Your task to perform on an android device: Show the shopping cart on ebay. Add "bose soundsport free" to the cart on ebay, then select checkout. Image 0: 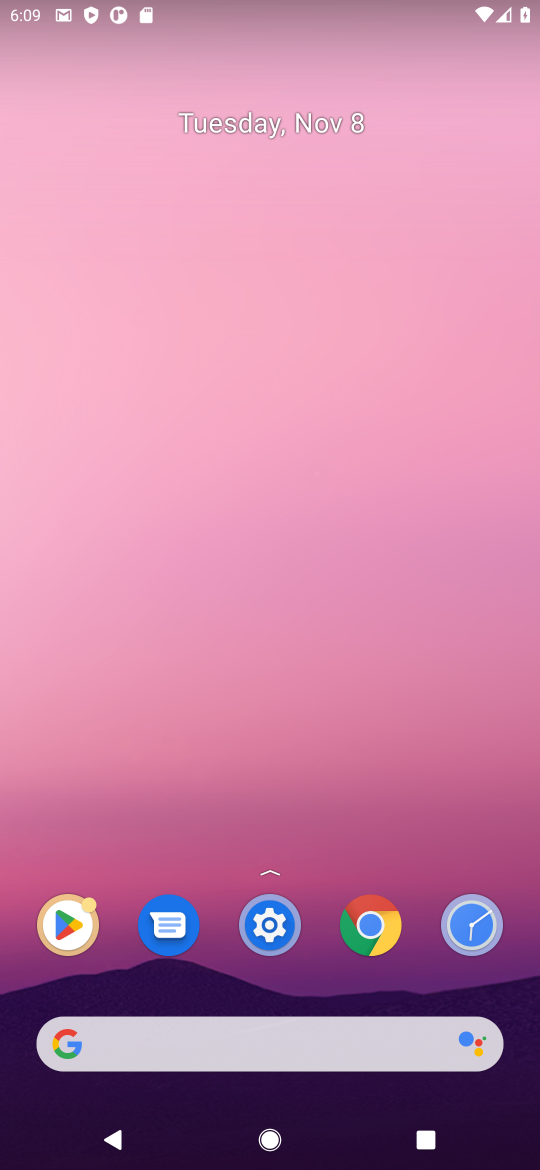
Step 0: click (369, 924)
Your task to perform on an android device: Show the shopping cart on ebay. Add "bose soundsport free" to the cart on ebay, then select checkout. Image 1: 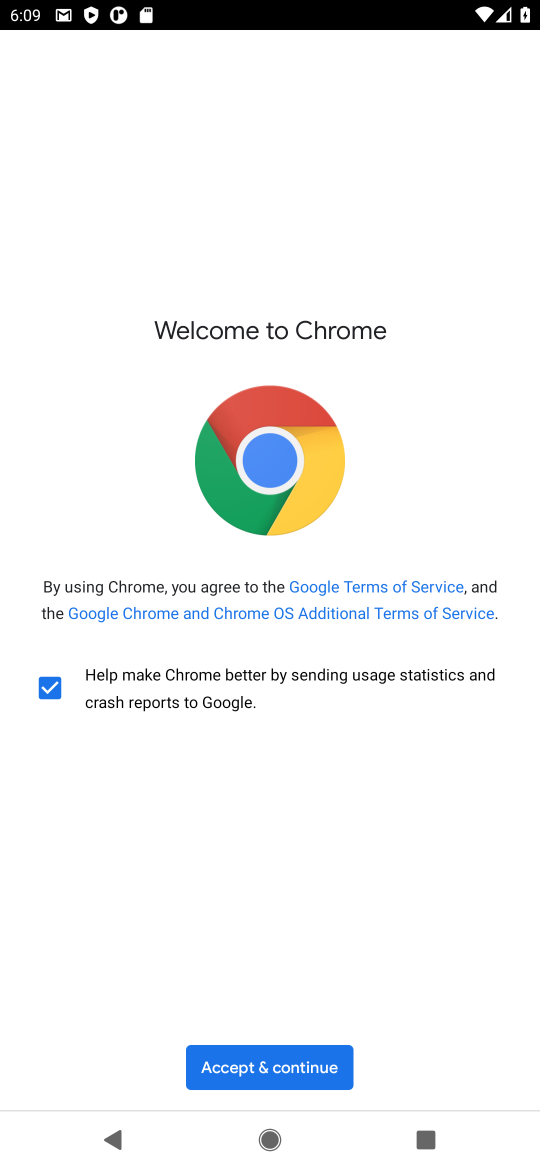
Step 1: click (282, 1067)
Your task to perform on an android device: Show the shopping cart on ebay. Add "bose soundsport free" to the cart on ebay, then select checkout. Image 2: 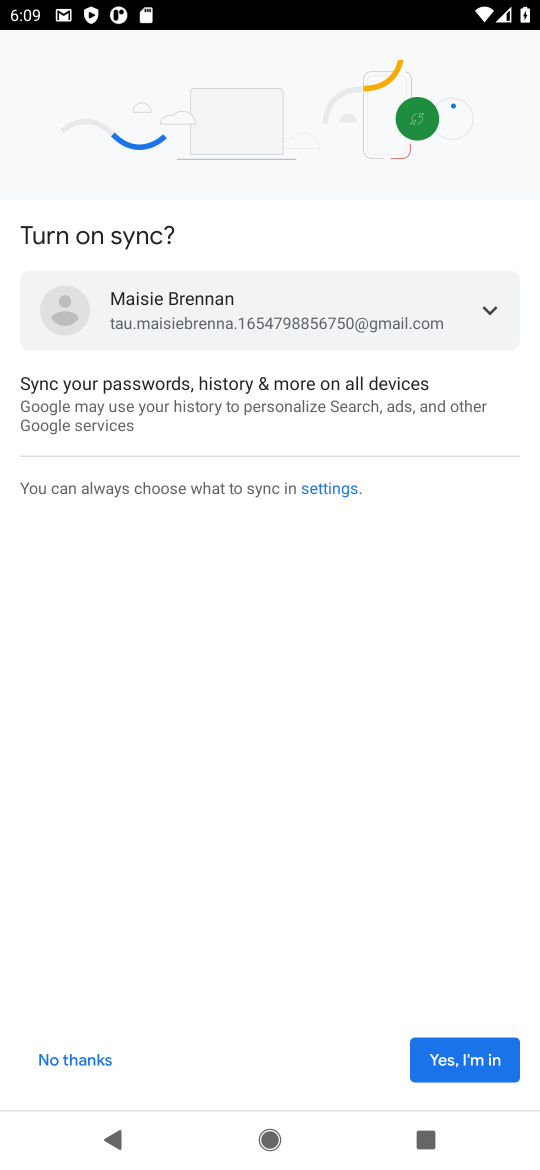
Step 2: click (82, 1058)
Your task to perform on an android device: Show the shopping cart on ebay. Add "bose soundsport free" to the cart on ebay, then select checkout. Image 3: 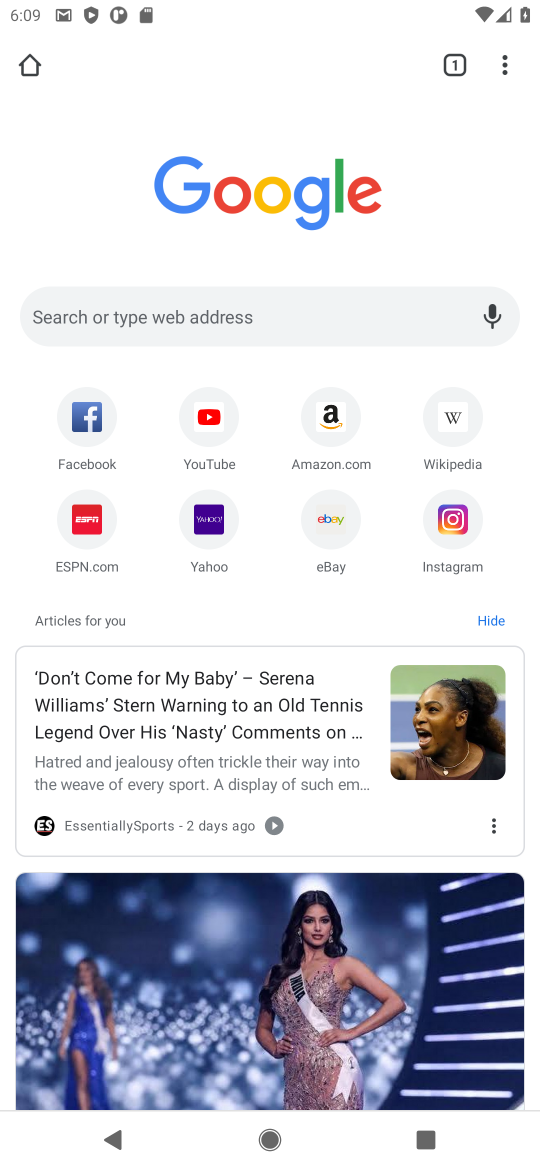
Step 3: click (333, 520)
Your task to perform on an android device: Show the shopping cart on ebay. Add "bose soundsport free" to the cart on ebay, then select checkout. Image 4: 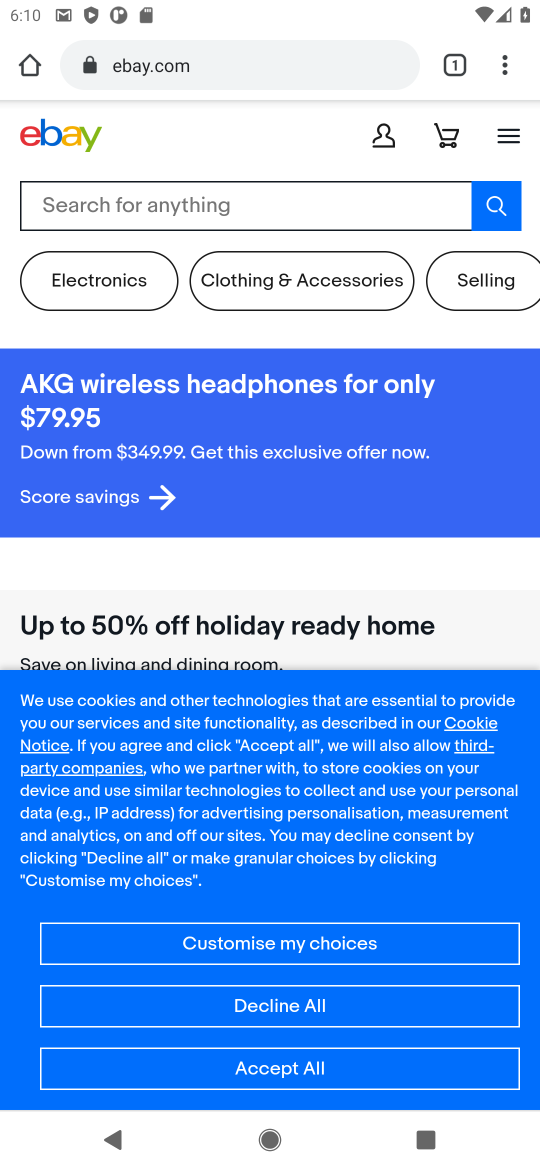
Step 4: click (450, 134)
Your task to perform on an android device: Show the shopping cart on ebay. Add "bose soundsport free" to the cart on ebay, then select checkout. Image 5: 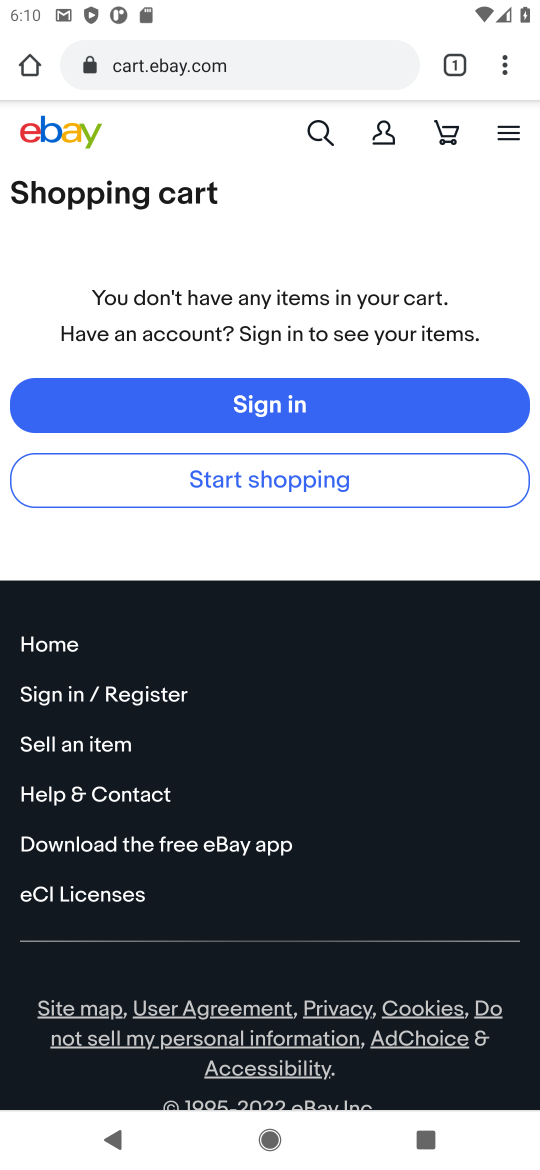
Step 5: click (327, 136)
Your task to perform on an android device: Show the shopping cart on ebay. Add "bose soundsport free" to the cart on ebay, then select checkout. Image 6: 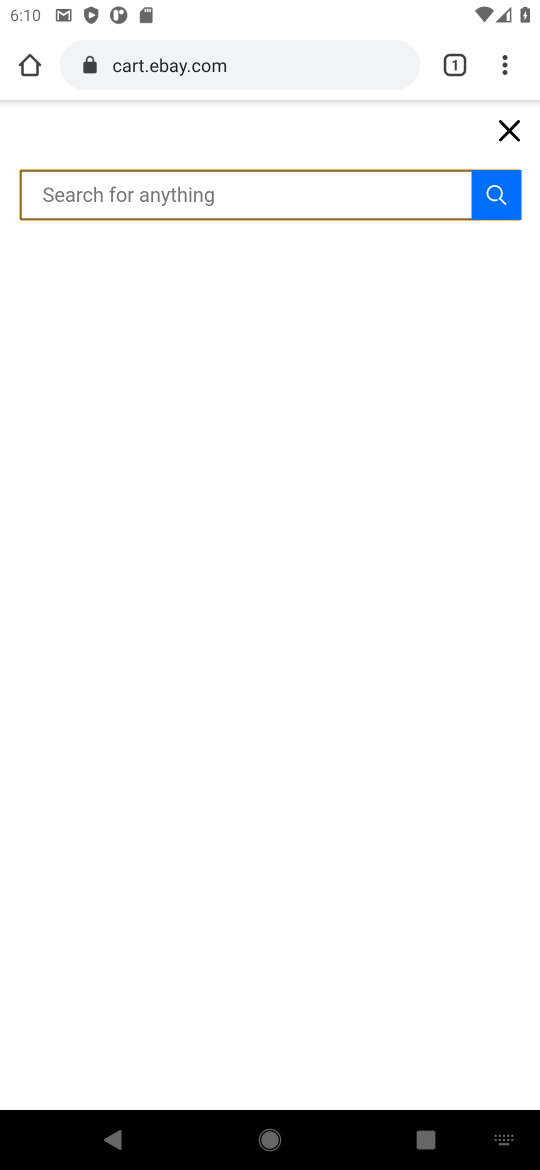
Step 6: type "bose soundsport free"
Your task to perform on an android device: Show the shopping cart on ebay. Add "bose soundsport free" to the cart on ebay, then select checkout. Image 7: 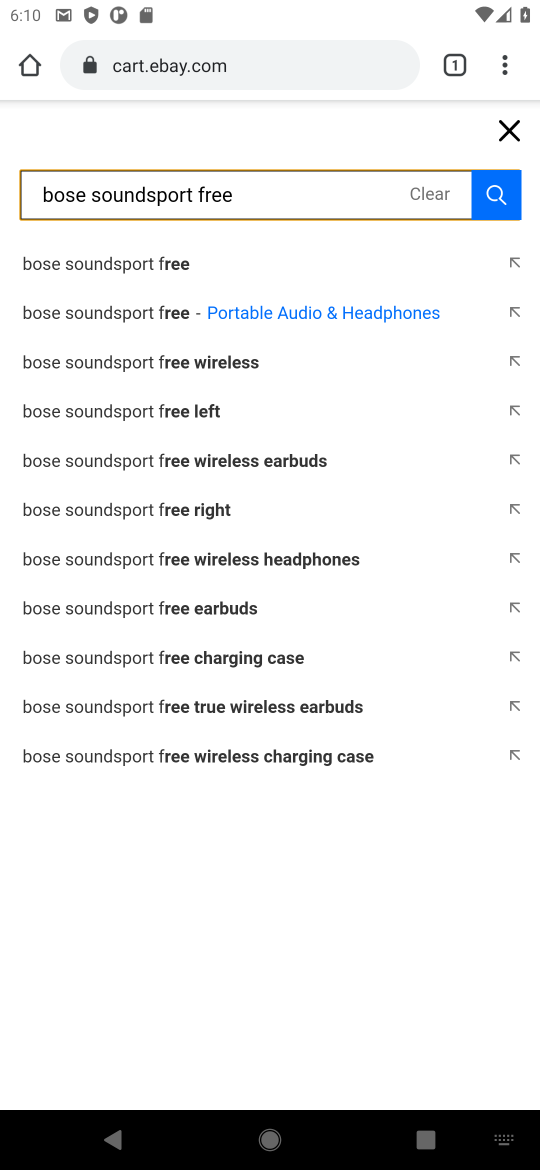
Step 7: click (126, 265)
Your task to perform on an android device: Show the shopping cart on ebay. Add "bose soundsport free" to the cart on ebay, then select checkout. Image 8: 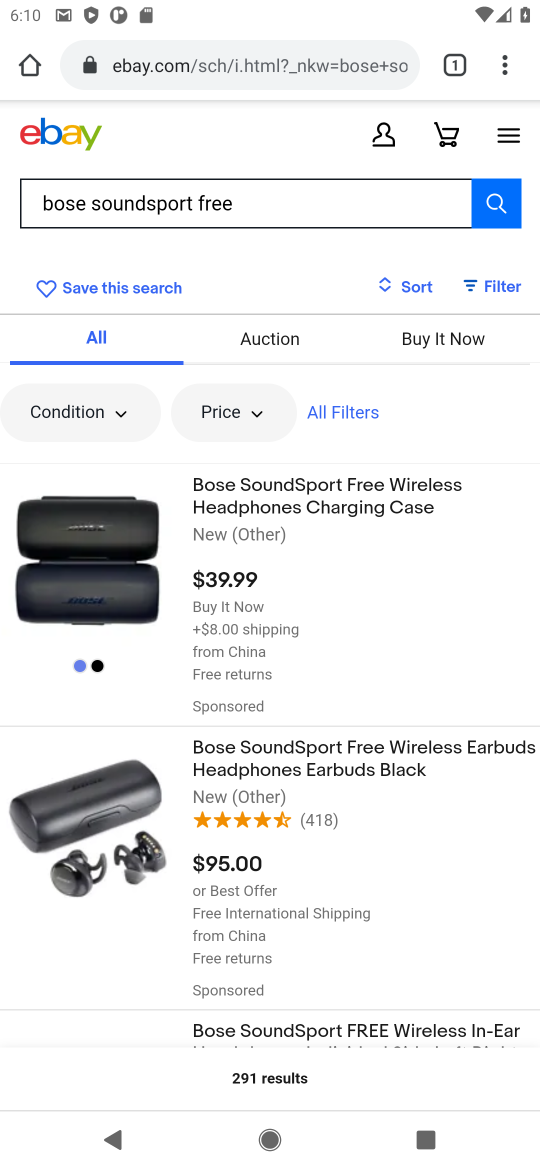
Step 8: click (205, 498)
Your task to perform on an android device: Show the shopping cart on ebay. Add "bose soundsport free" to the cart on ebay, then select checkout. Image 9: 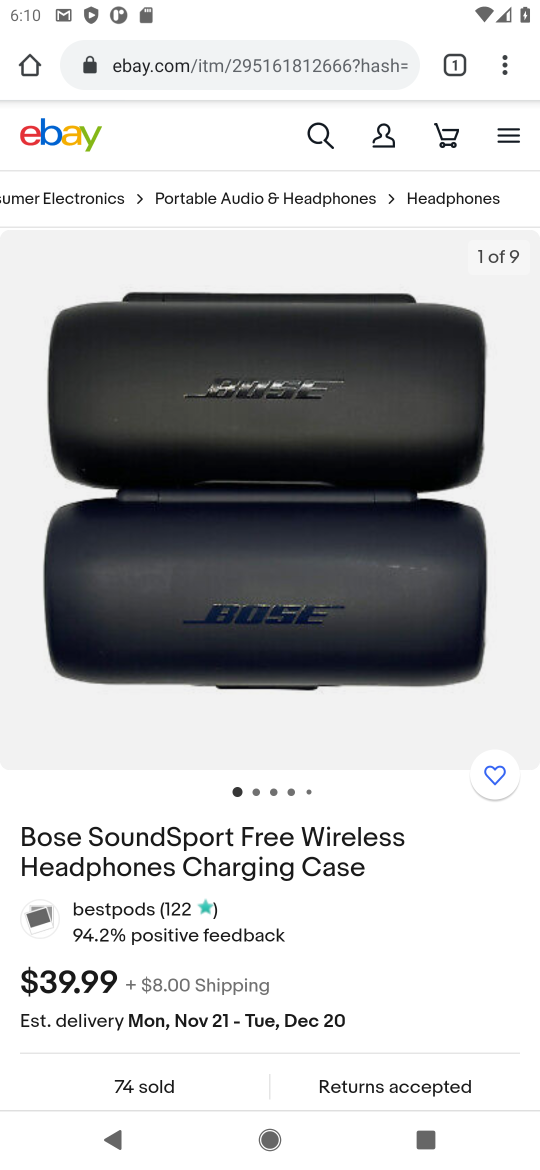
Step 9: drag from (461, 875) to (398, 241)
Your task to perform on an android device: Show the shopping cart on ebay. Add "bose soundsport free" to the cart on ebay, then select checkout. Image 10: 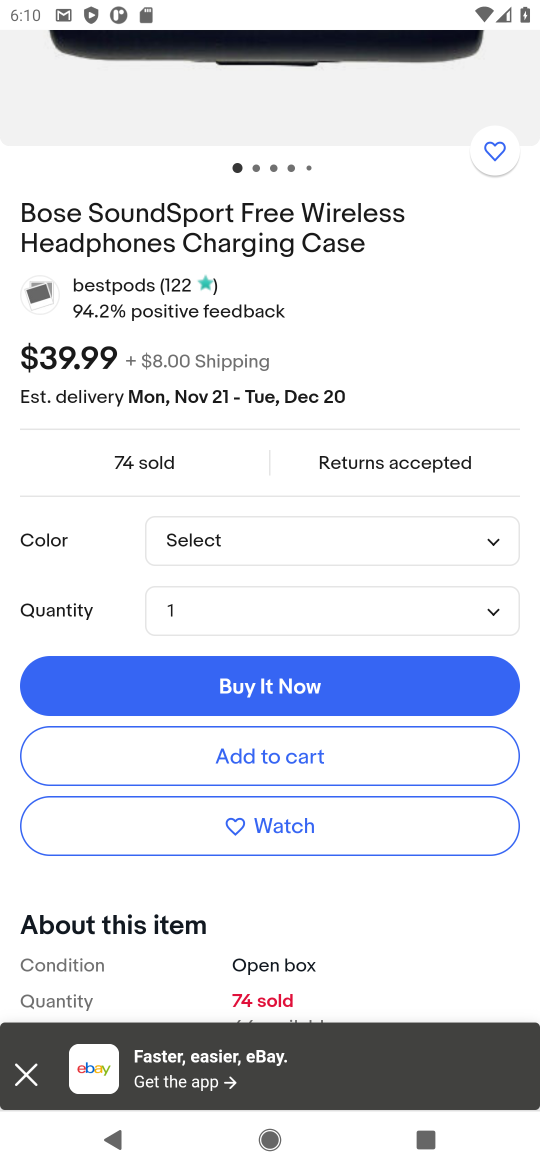
Step 10: click (231, 756)
Your task to perform on an android device: Show the shopping cart on ebay. Add "bose soundsport free" to the cart on ebay, then select checkout. Image 11: 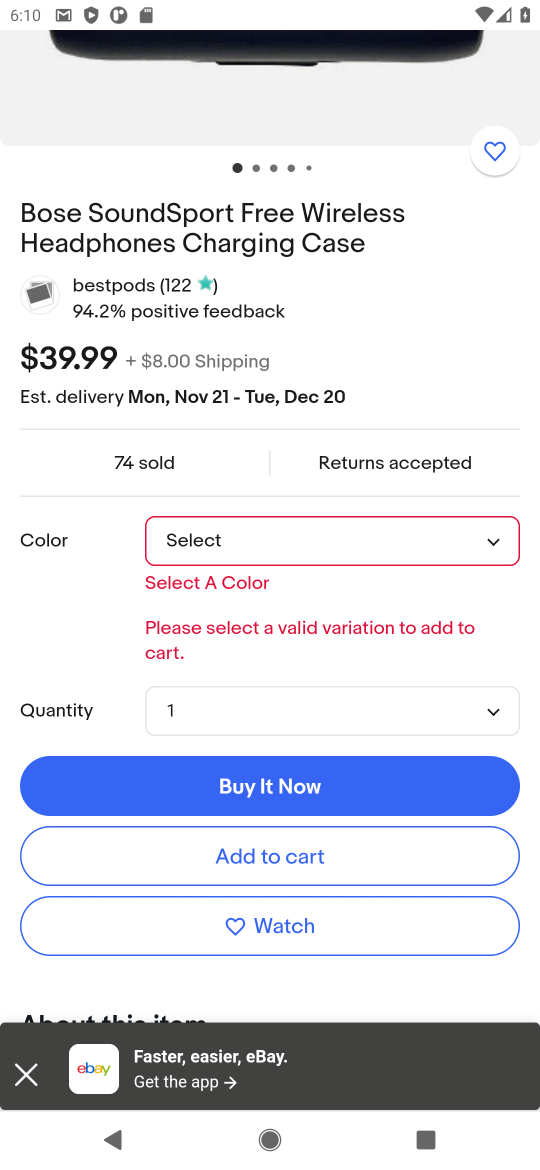
Step 11: click (326, 537)
Your task to perform on an android device: Show the shopping cart on ebay. Add "bose soundsport free" to the cart on ebay, then select checkout. Image 12: 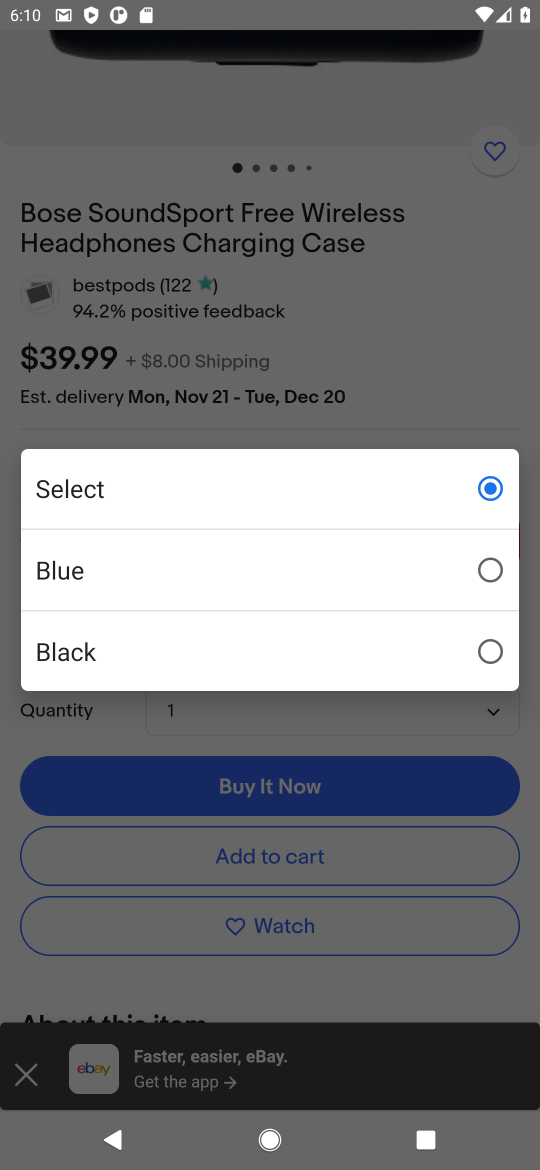
Step 12: click (263, 647)
Your task to perform on an android device: Show the shopping cart on ebay. Add "bose soundsport free" to the cart on ebay, then select checkout. Image 13: 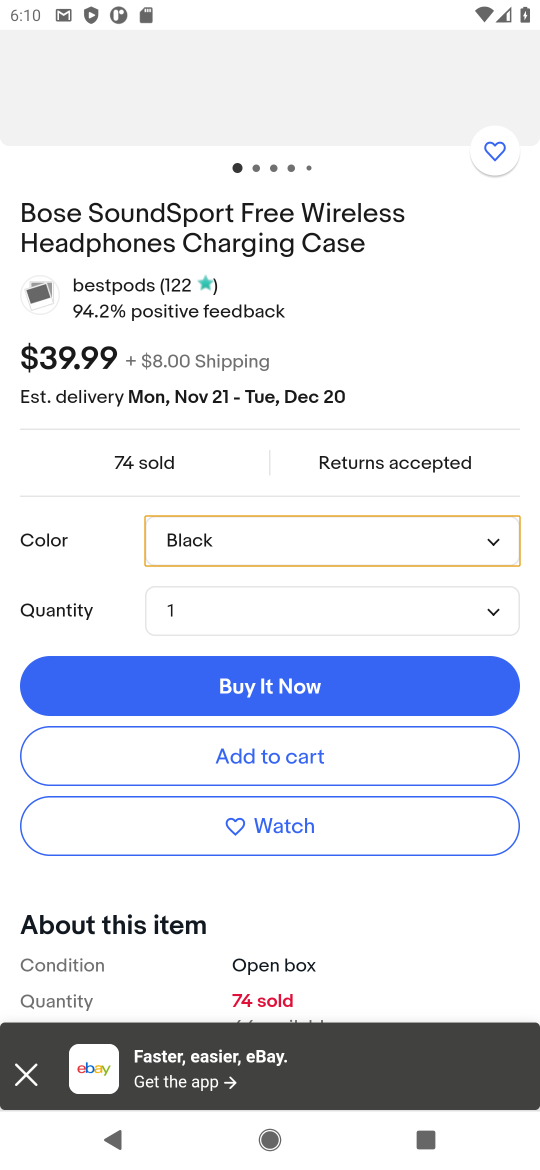
Step 13: click (286, 757)
Your task to perform on an android device: Show the shopping cart on ebay. Add "bose soundsport free" to the cart on ebay, then select checkout. Image 14: 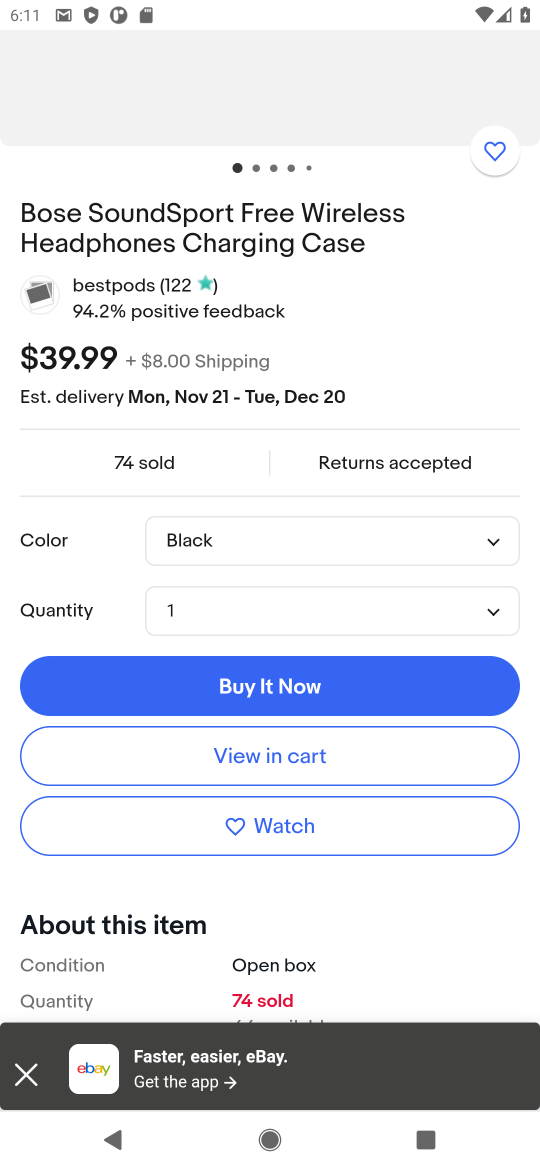
Step 14: click (286, 757)
Your task to perform on an android device: Show the shopping cart on ebay. Add "bose soundsport free" to the cart on ebay, then select checkout. Image 15: 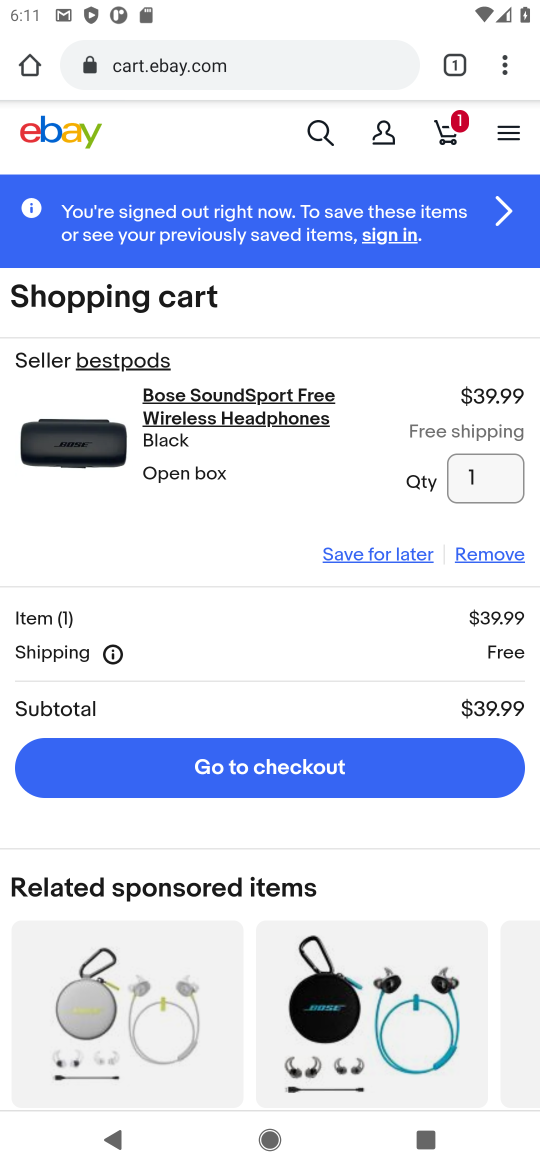
Step 15: click (279, 767)
Your task to perform on an android device: Show the shopping cart on ebay. Add "bose soundsport free" to the cart on ebay, then select checkout. Image 16: 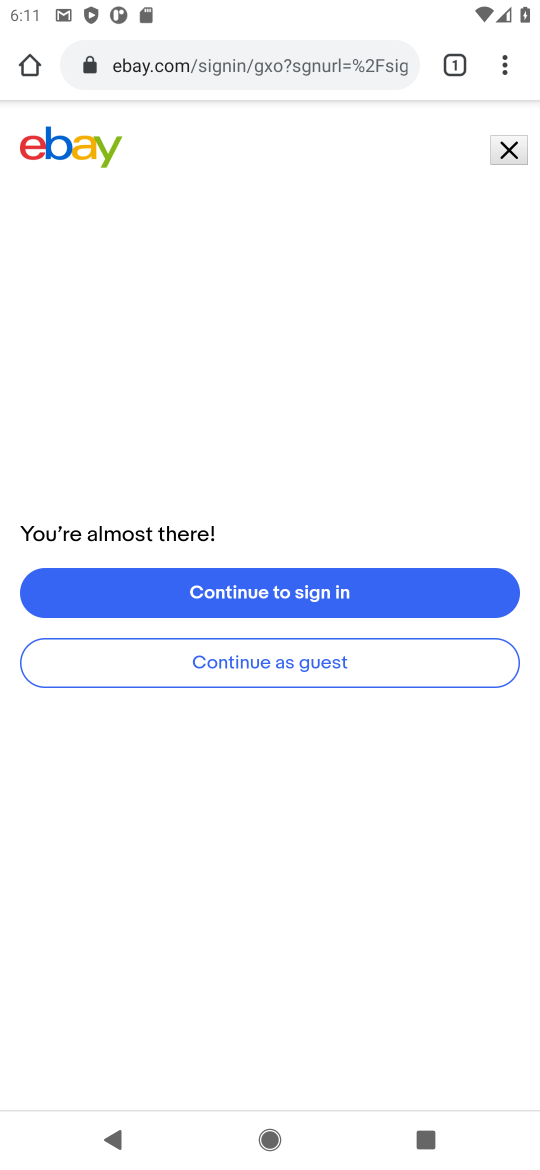
Step 16: task complete